Your task to perform on an android device: Find coffee shops on Maps Image 0: 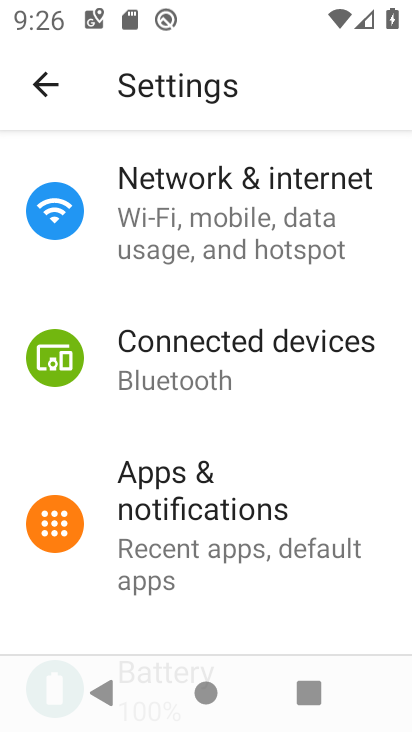
Step 0: press home button
Your task to perform on an android device: Find coffee shops on Maps Image 1: 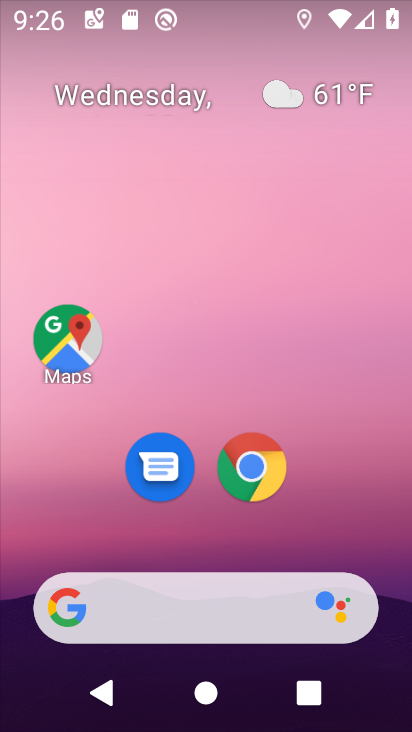
Step 1: drag from (344, 520) to (405, 48)
Your task to perform on an android device: Find coffee shops on Maps Image 2: 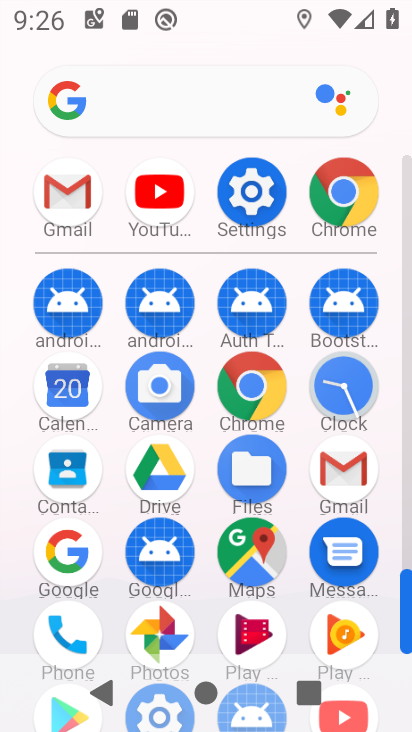
Step 2: click (358, 185)
Your task to perform on an android device: Find coffee shops on Maps Image 3: 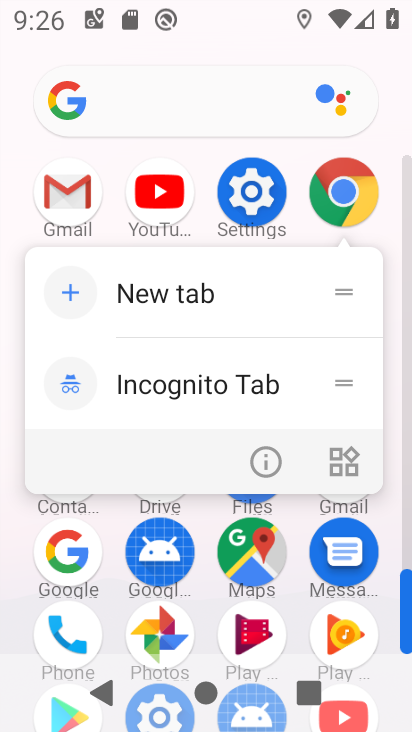
Step 3: click (357, 186)
Your task to perform on an android device: Find coffee shops on Maps Image 4: 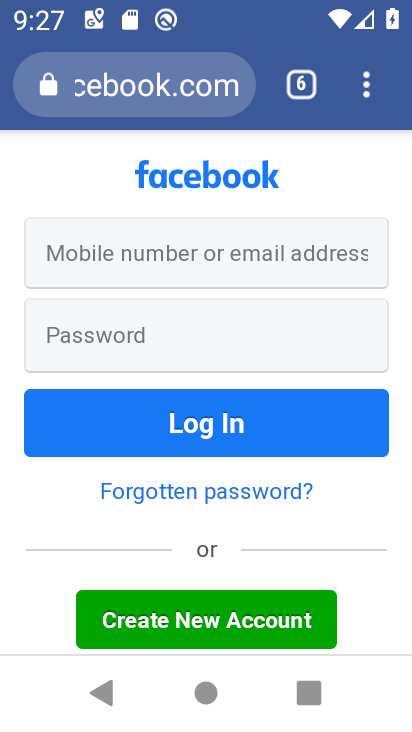
Step 4: press home button
Your task to perform on an android device: Find coffee shops on Maps Image 5: 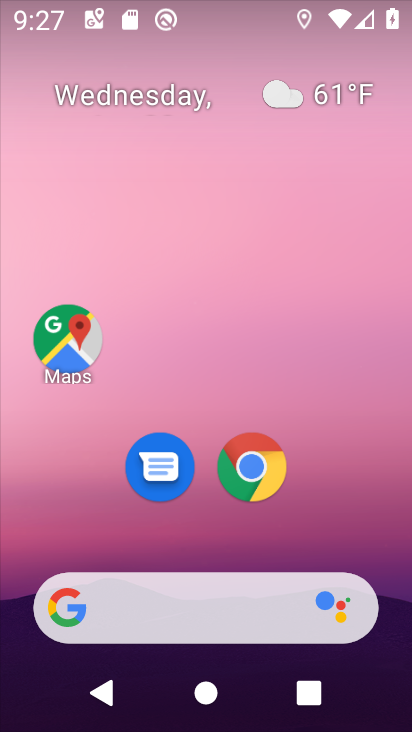
Step 5: click (74, 365)
Your task to perform on an android device: Find coffee shops on Maps Image 6: 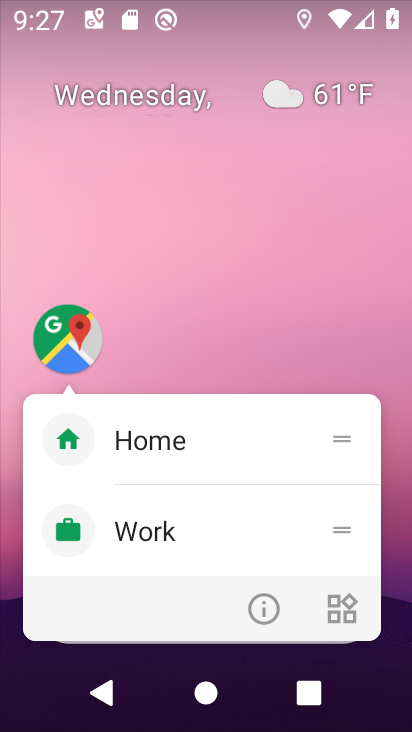
Step 6: click (75, 349)
Your task to perform on an android device: Find coffee shops on Maps Image 7: 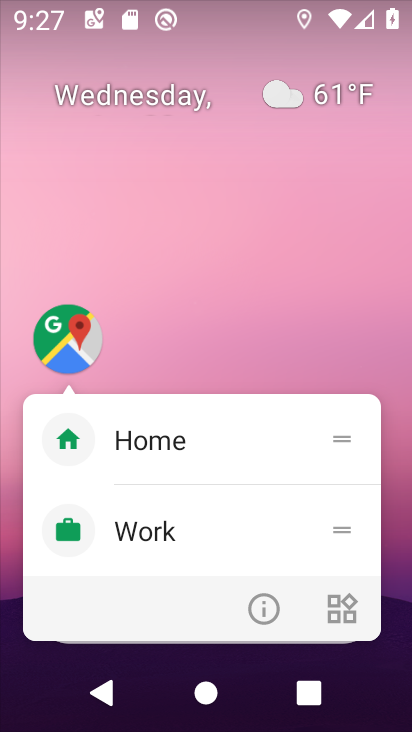
Step 7: click (82, 327)
Your task to perform on an android device: Find coffee shops on Maps Image 8: 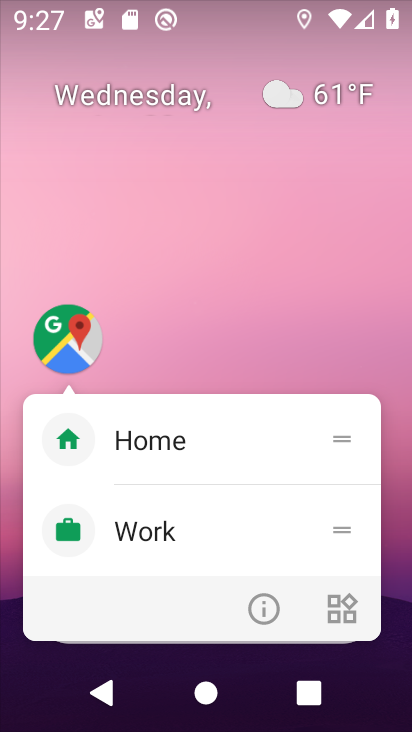
Step 8: click (84, 333)
Your task to perform on an android device: Find coffee shops on Maps Image 9: 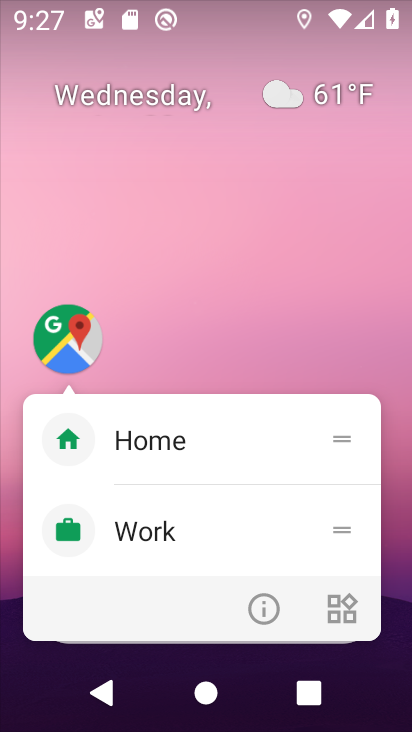
Step 9: click (85, 336)
Your task to perform on an android device: Find coffee shops on Maps Image 10: 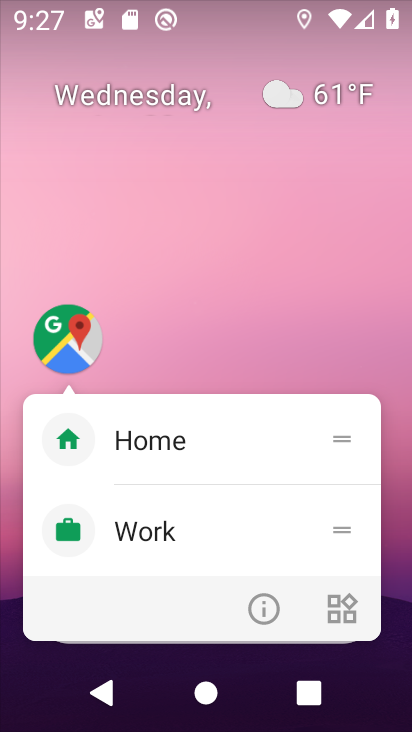
Step 10: click (86, 339)
Your task to perform on an android device: Find coffee shops on Maps Image 11: 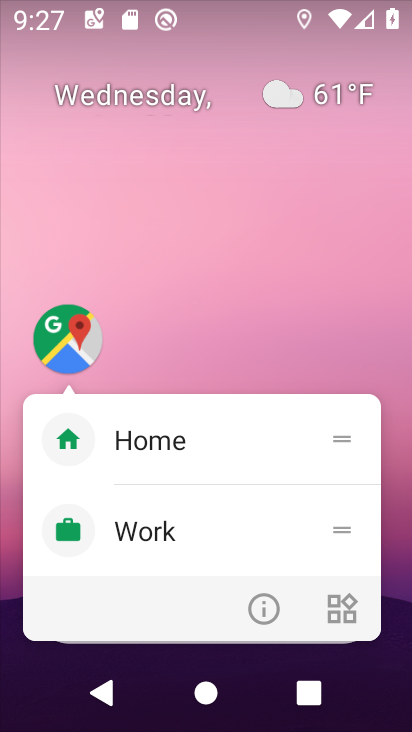
Step 11: click (86, 337)
Your task to perform on an android device: Find coffee shops on Maps Image 12: 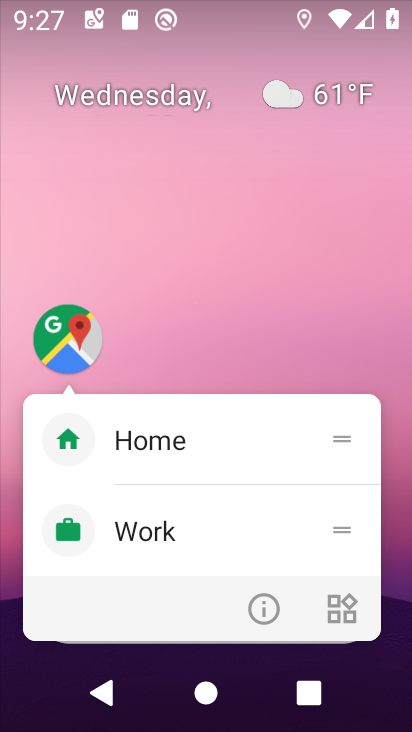
Step 12: click (86, 337)
Your task to perform on an android device: Find coffee shops on Maps Image 13: 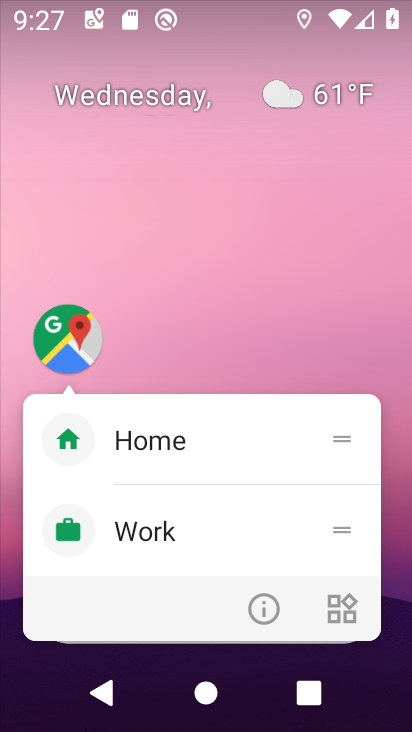
Step 13: click (86, 337)
Your task to perform on an android device: Find coffee shops on Maps Image 14: 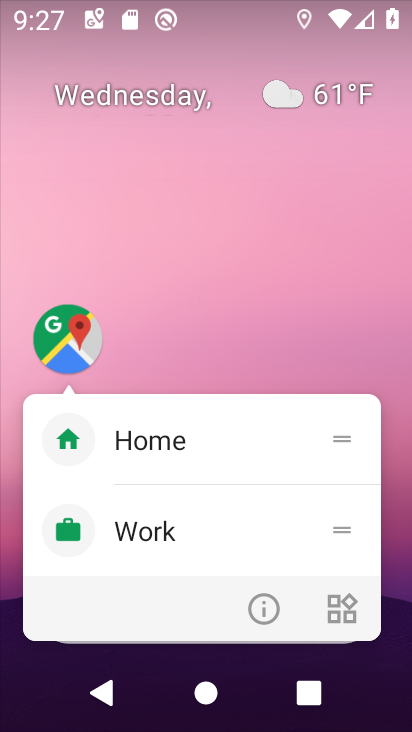
Step 14: click (86, 337)
Your task to perform on an android device: Find coffee shops on Maps Image 15: 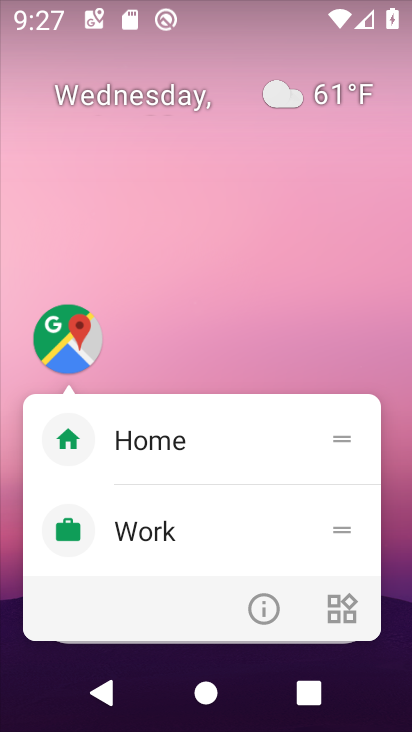
Step 15: click (86, 337)
Your task to perform on an android device: Find coffee shops on Maps Image 16: 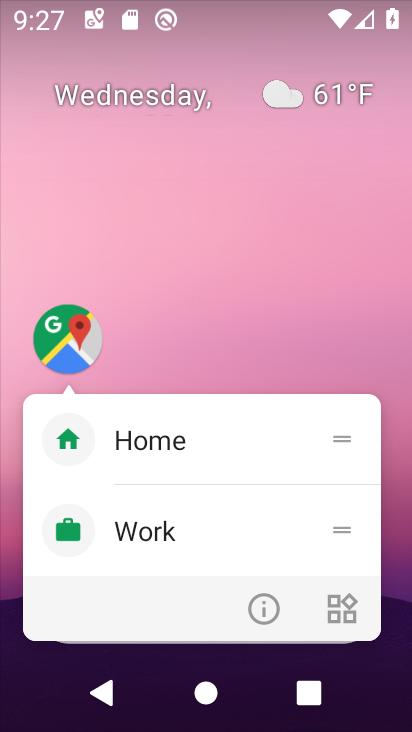
Step 16: click (86, 337)
Your task to perform on an android device: Find coffee shops on Maps Image 17: 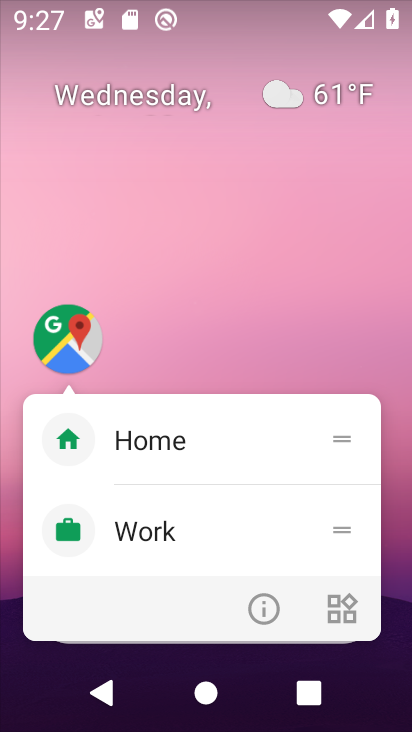
Step 17: click (86, 336)
Your task to perform on an android device: Find coffee shops on Maps Image 18: 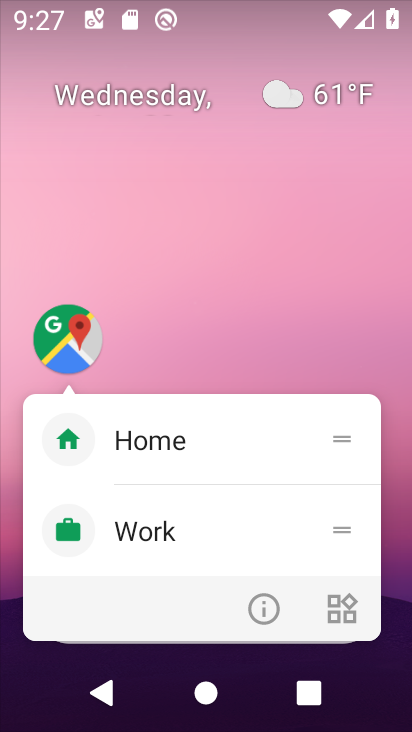
Step 18: click (86, 336)
Your task to perform on an android device: Find coffee shops on Maps Image 19: 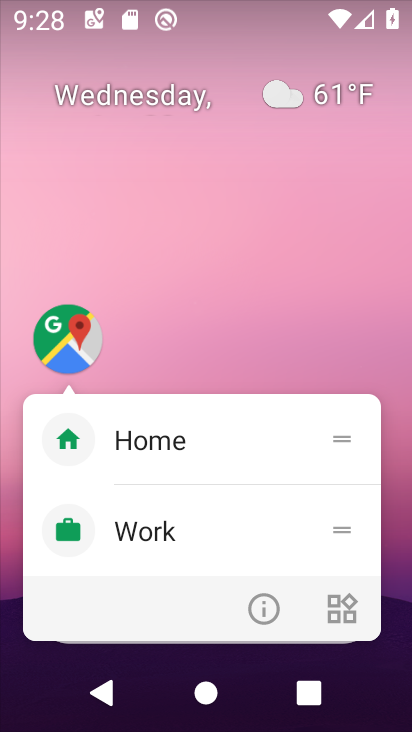
Step 19: click (86, 335)
Your task to perform on an android device: Find coffee shops on Maps Image 20: 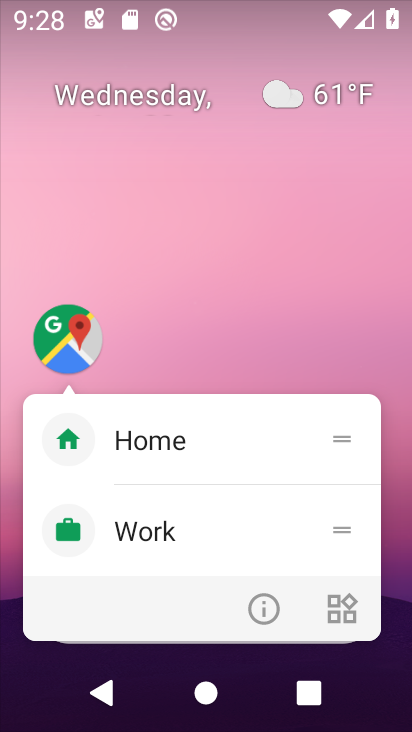
Step 20: click (86, 334)
Your task to perform on an android device: Find coffee shops on Maps Image 21: 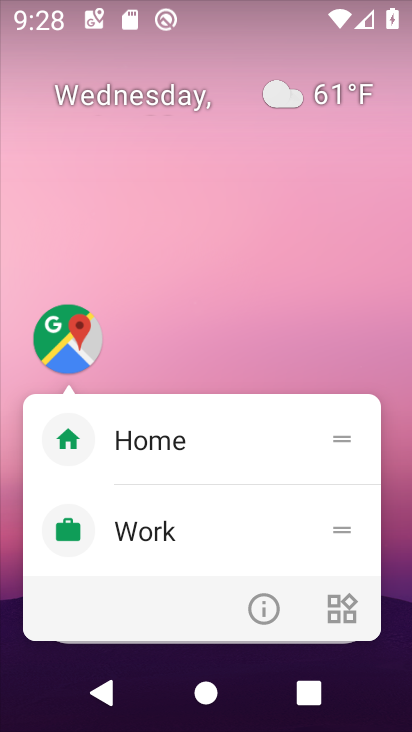
Step 21: click (86, 333)
Your task to perform on an android device: Find coffee shops on Maps Image 22: 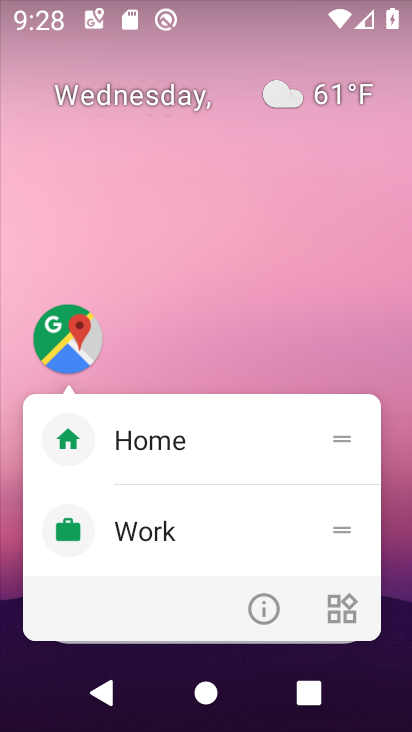
Step 22: click (86, 333)
Your task to perform on an android device: Find coffee shops on Maps Image 23: 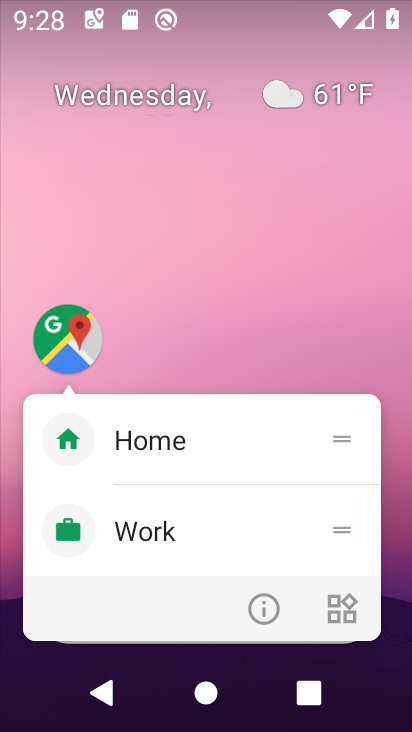
Step 23: click (86, 331)
Your task to perform on an android device: Find coffee shops on Maps Image 24: 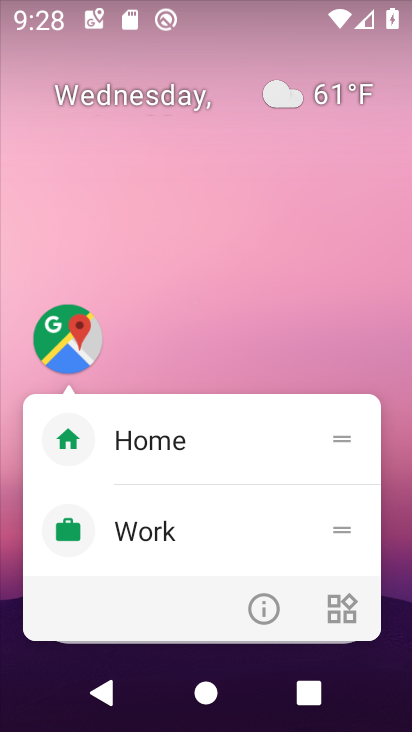
Step 24: click (86, 331)
Your task to perform on an android device: Find coffee shops on Maps Image 25: 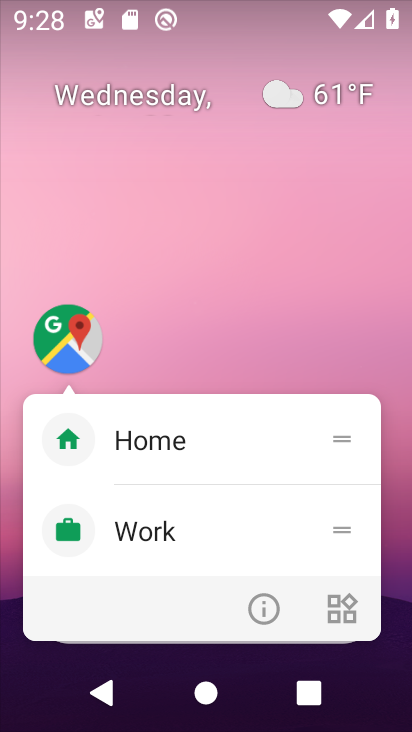
Step 25: click (86, 331)
Your task to perform on an android device: Find coffee shops on Maps Image 26: 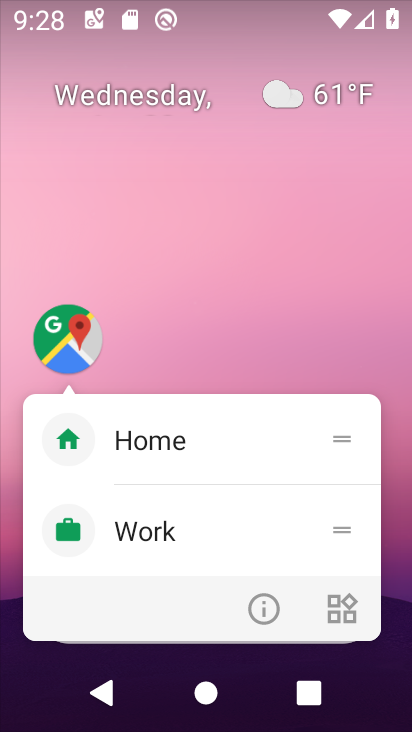
Step 26: click (86, 331)
Your task to perform on an android device: Find coffee shops on Maps Image 27: 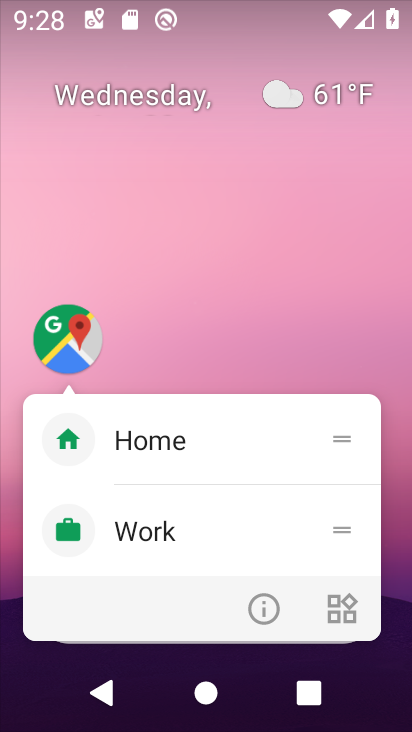
Step 27: click (86, 330)
Your task to perform on an android device: Find coffee shops on Maps Image 28: 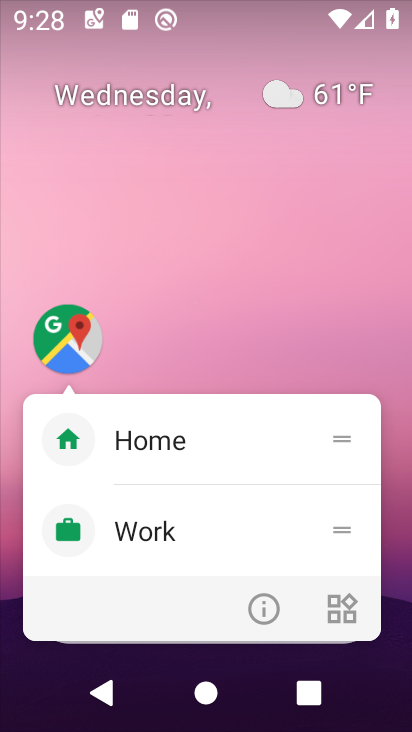
Step 28: click (86, 328)
Your task to perform on an android device: Find coffee shops on Maps Image 29: 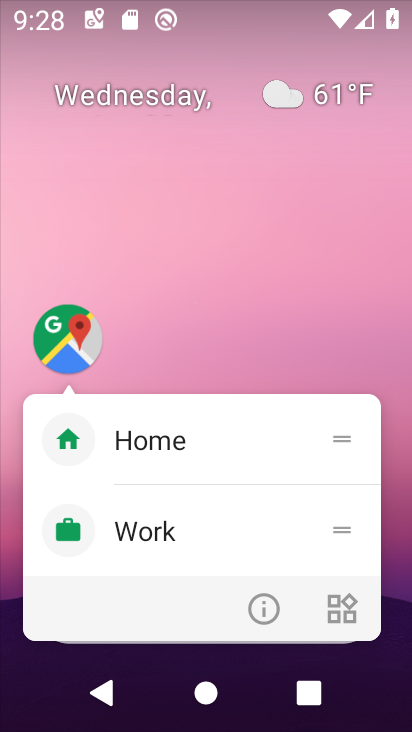
Step 29: click (87, 329)
Your task to perform on an android device: Find coffee shops on Maps Image 30: 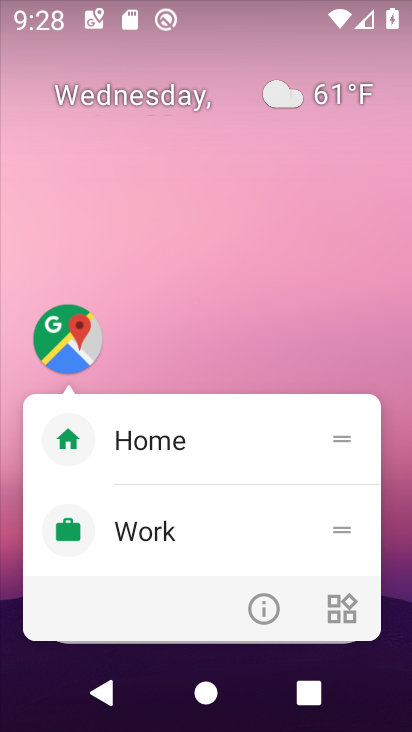
Step 30: click (87, 329)
Your task to perform on an android device: Find coffee shops on Maps Image 31: 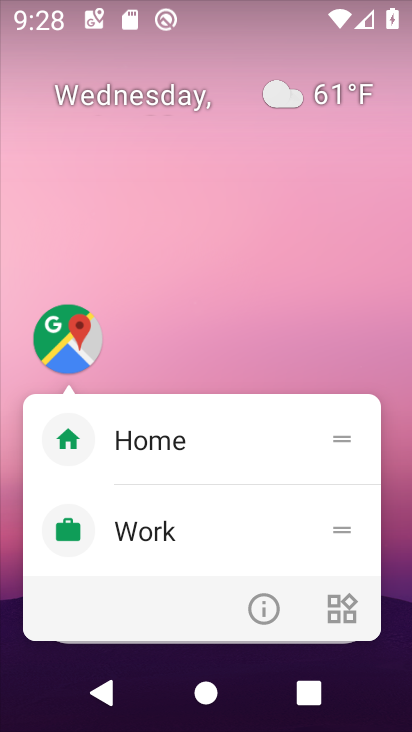
Step 31: click (87, 329)
Your task to perform on an android device: Find coffee shops on Maps Image 32: 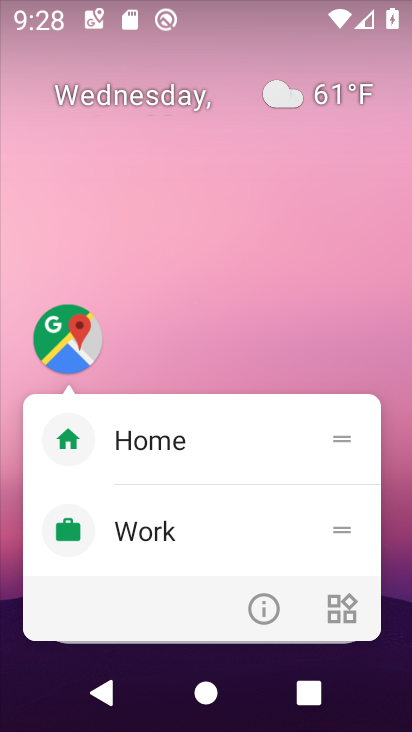
Step 32: click (87, 329)
Your task to perform on an android device: Find coffee shops on Maps Image 33: 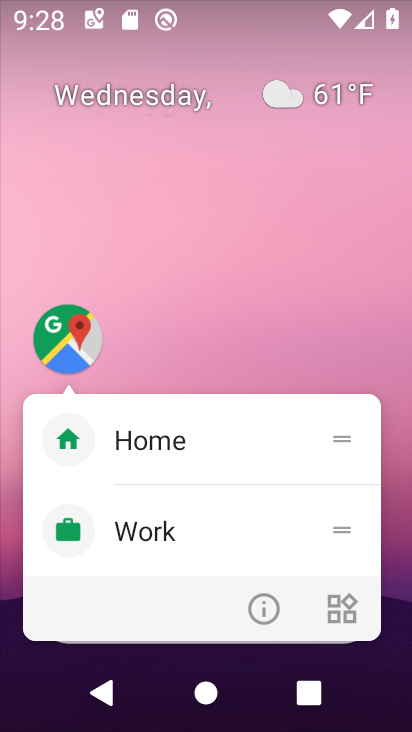
Step 33: click (87, 329)
Your task to perform on an android device: Find coffee shops on Maps Image 34: 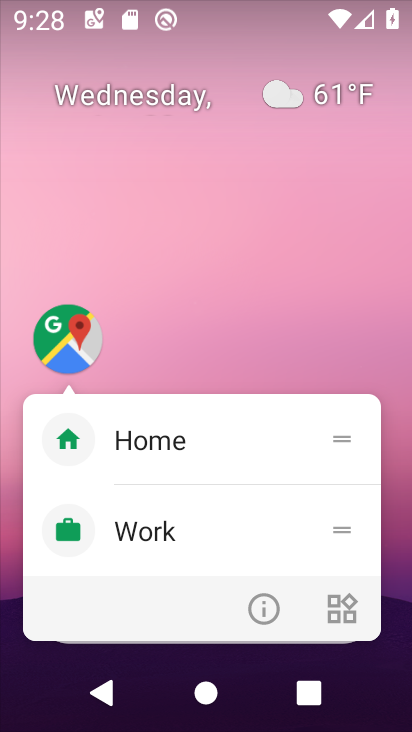
Step 34: click (87, 329)
Your task to perform on an android device: Find coffee shops on Maps Image 35: 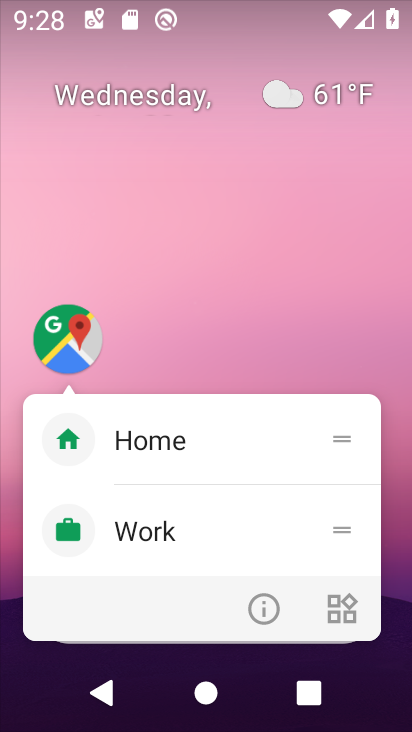
Step 35: click (87, 329)
Your task to perform on an android device: Find coffee shops on Maps Image 36: 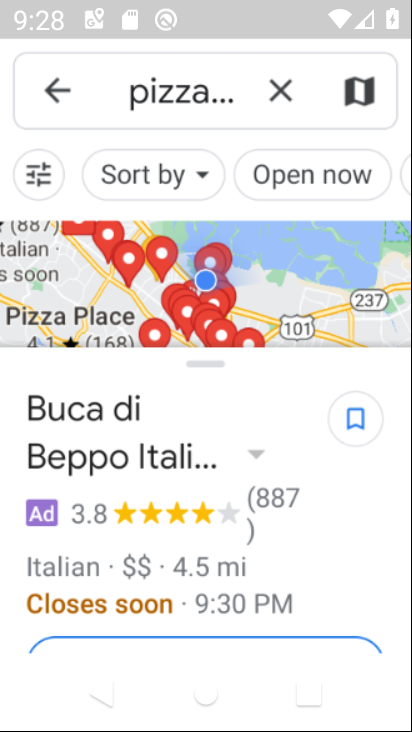
Step 36: click (87, 329)
Your task to perform on an android device: Find coffee shops on Maps Image 37: 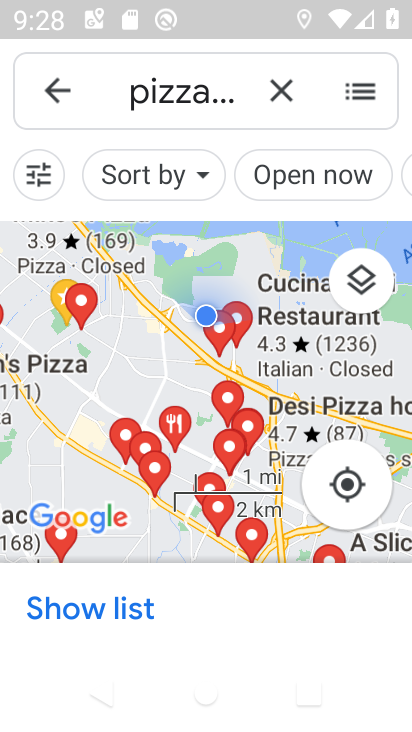
Step 37: click (284, 99)
Your task to perform on an android device: Find coffee shops on Maps Image 38: 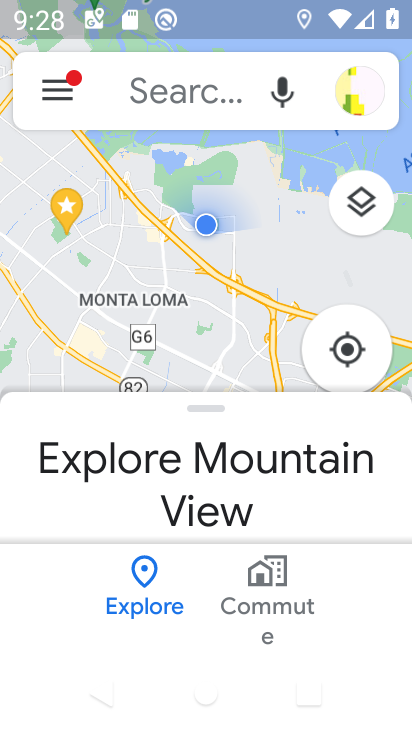
Step 38: click (181, 104)
Your task to perform on an android device: Find coffee shops on Maps Image 39: 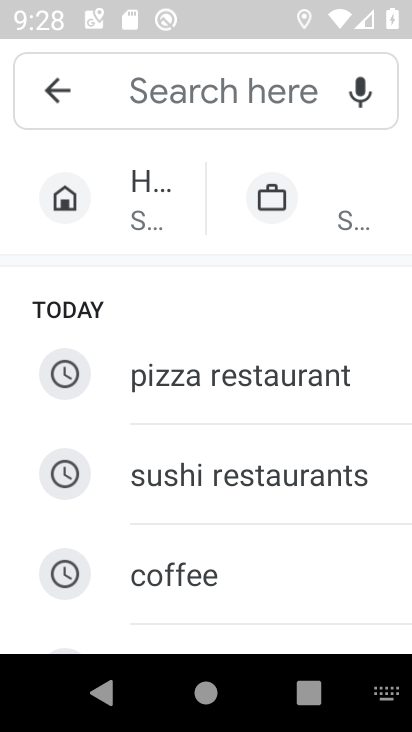
Step 39: click (171, 569)
Your task to perform on an android device: Find coffee shops on Maps Image 40: 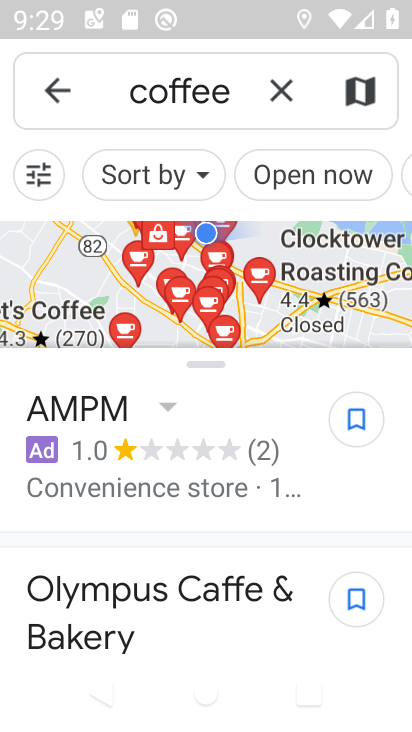
Step 40: task complete